Your task to perform on an android device: Go to network settings Image 0: 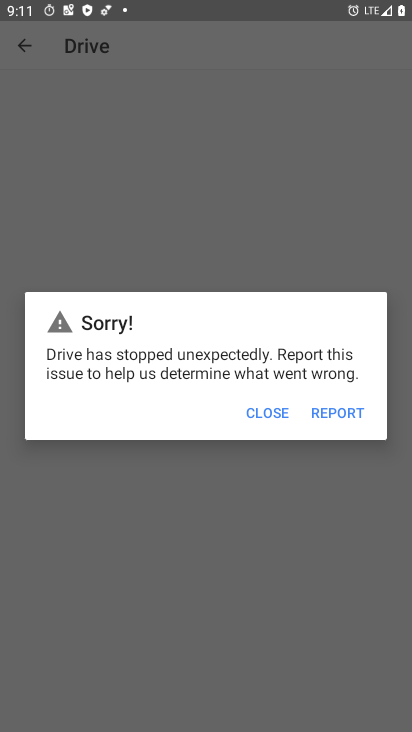
Step 0: press back button
Your task to perform on an android device: Go to network settings Image 1: 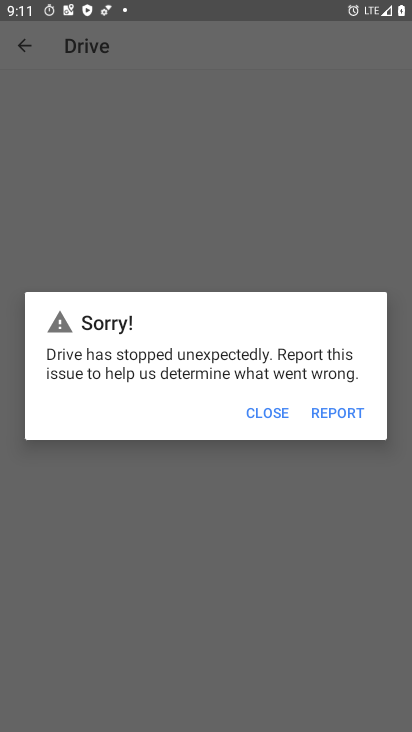
Step 1: press home button
Your task to perform on an android device: Go to network settings Image 2: 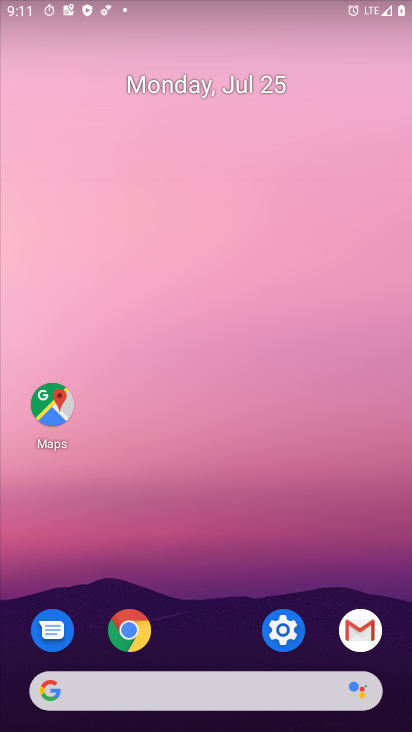
Step 2: click (283, 627)
Your task to perform on an android device: Go to network settings Image 3: 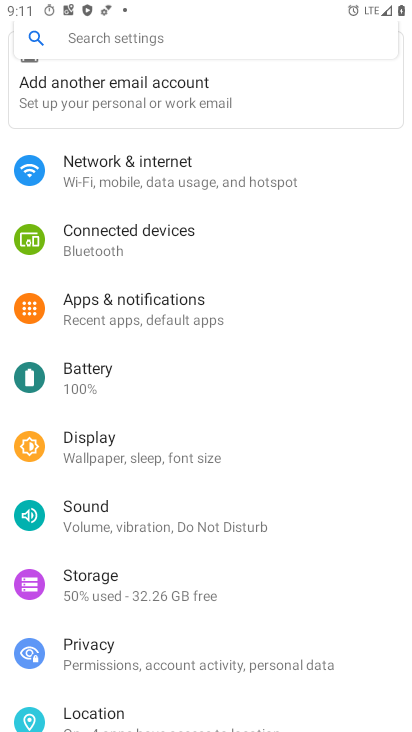
Step 3: click (175, 170)
Your task to perform on an android device: Go to network settings Image 4: 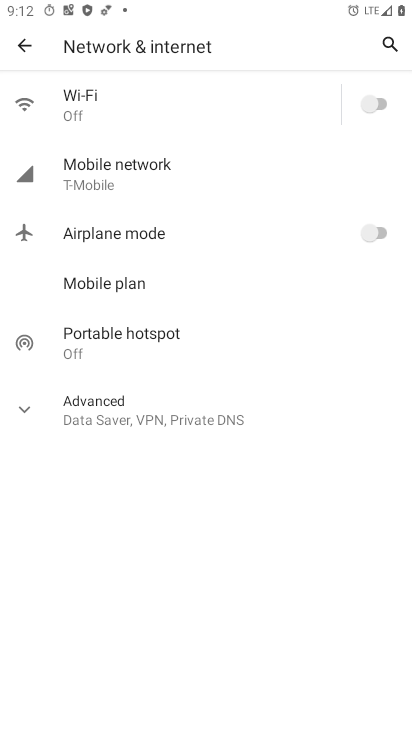
Step 4: task complete